Your task to perform on an android device: open app "Booking.com: Hotels and more" (install if not already installed) and enter user name: "misting@outlook.com" and password: "blandly" Image 0: 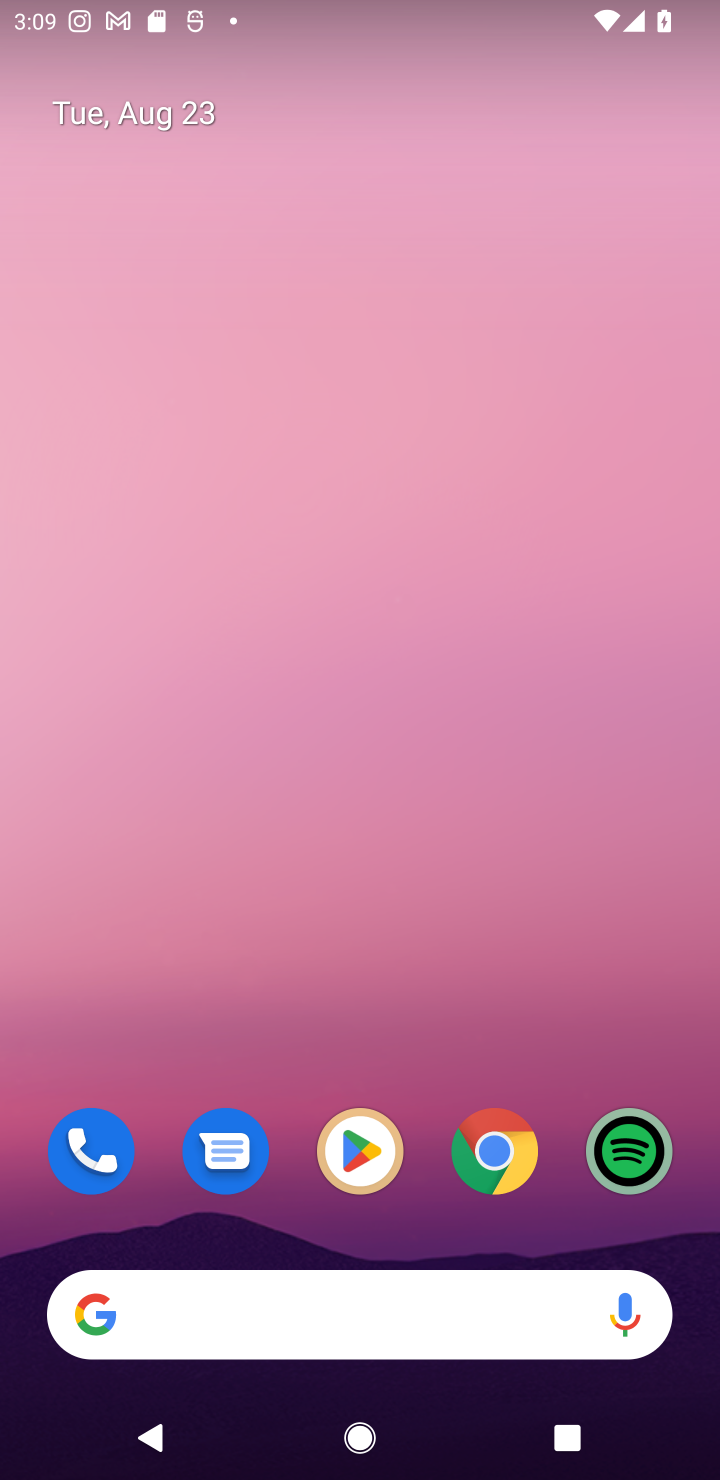
Step 0: press home button
Your task to perform on an android device: open app "Booking.com: Hotels and more" (install if not already installed) and enter user name: "misting@outlook.com" and password: "blandly" Image 1: 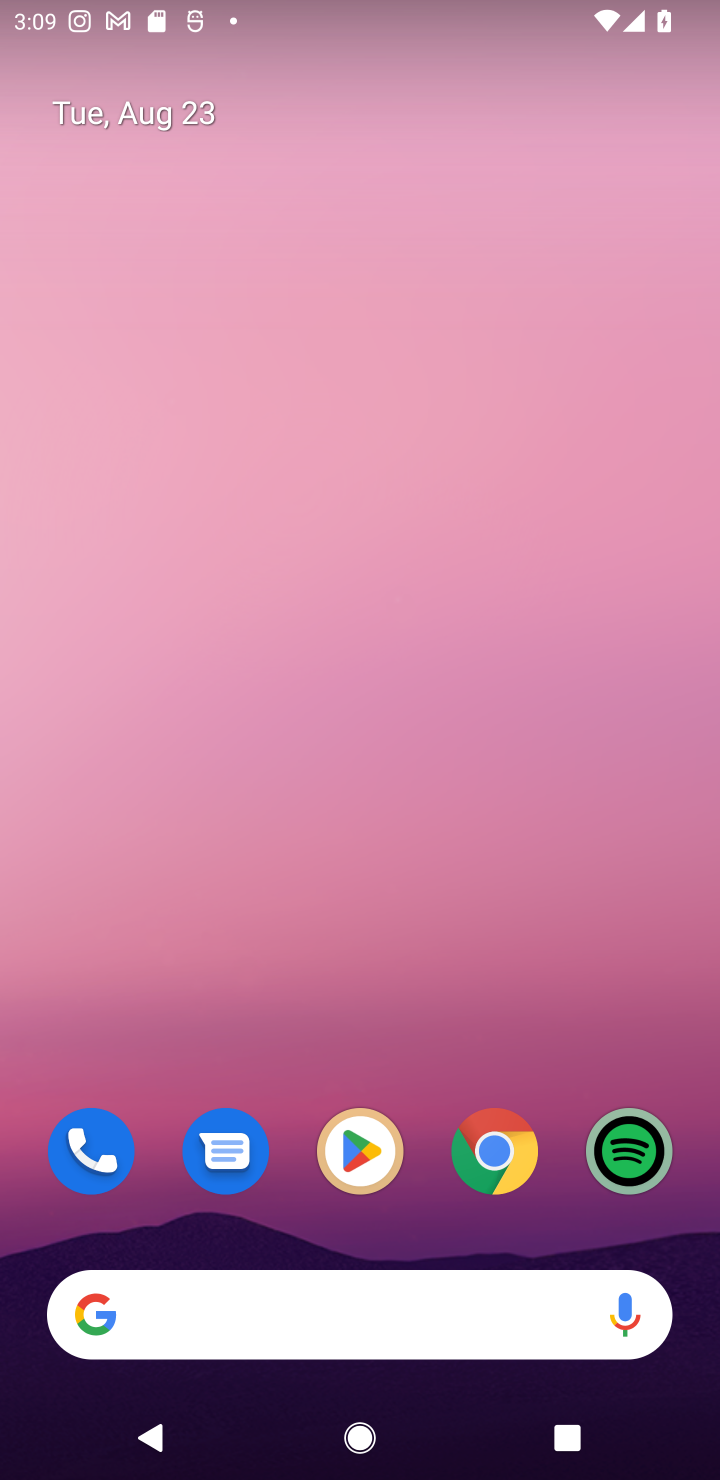
Step 1: click (349, 1155)
Your task to perform on an android device: open app "Booking.com: Hotels and more" (install if not already installed) and enter user name: "misting@outlook.com" and password: "blandly" Image 2: 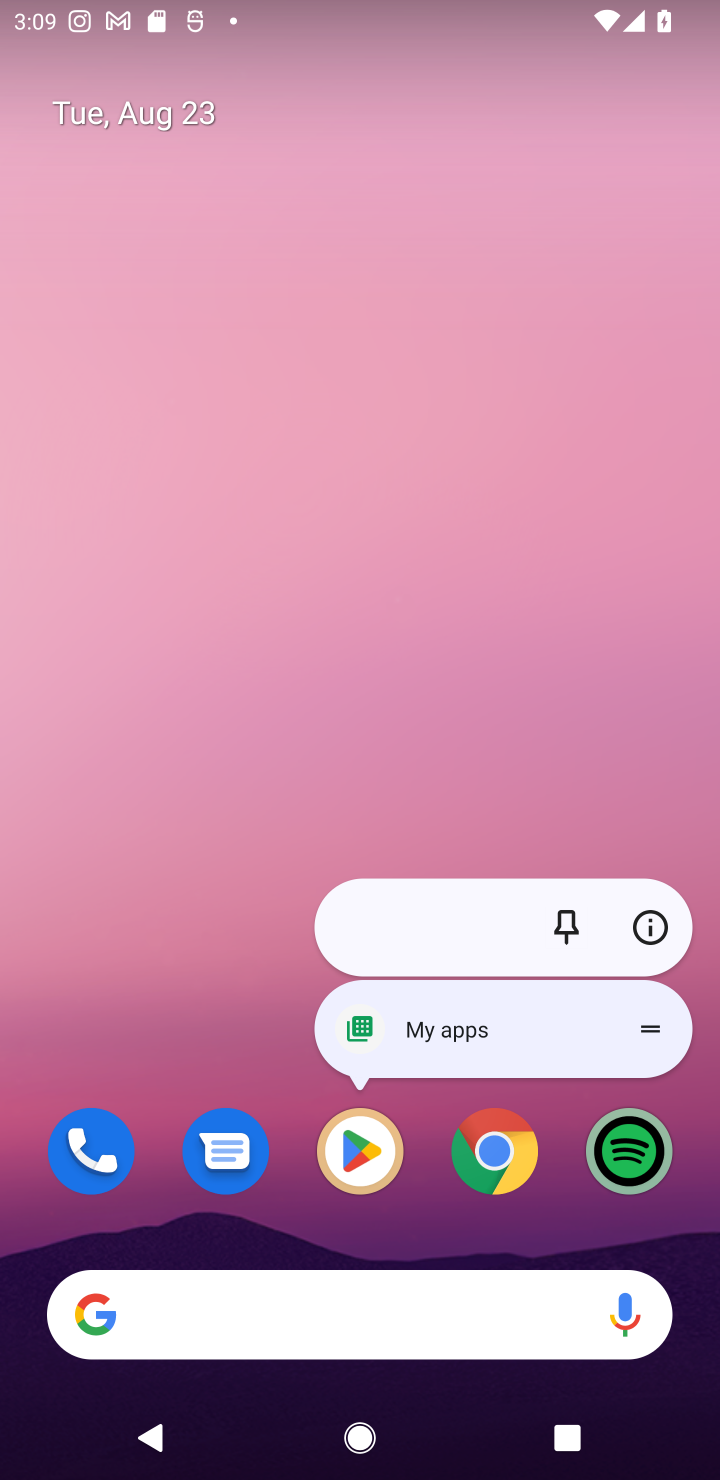
Step 2: click (354, 1144)
Your task to perform on an android device: open app "Booking.com: Hotels and more" (install if not already installed) and enter user name: "misting@outlook.com" and password: "blandly" Image 3: 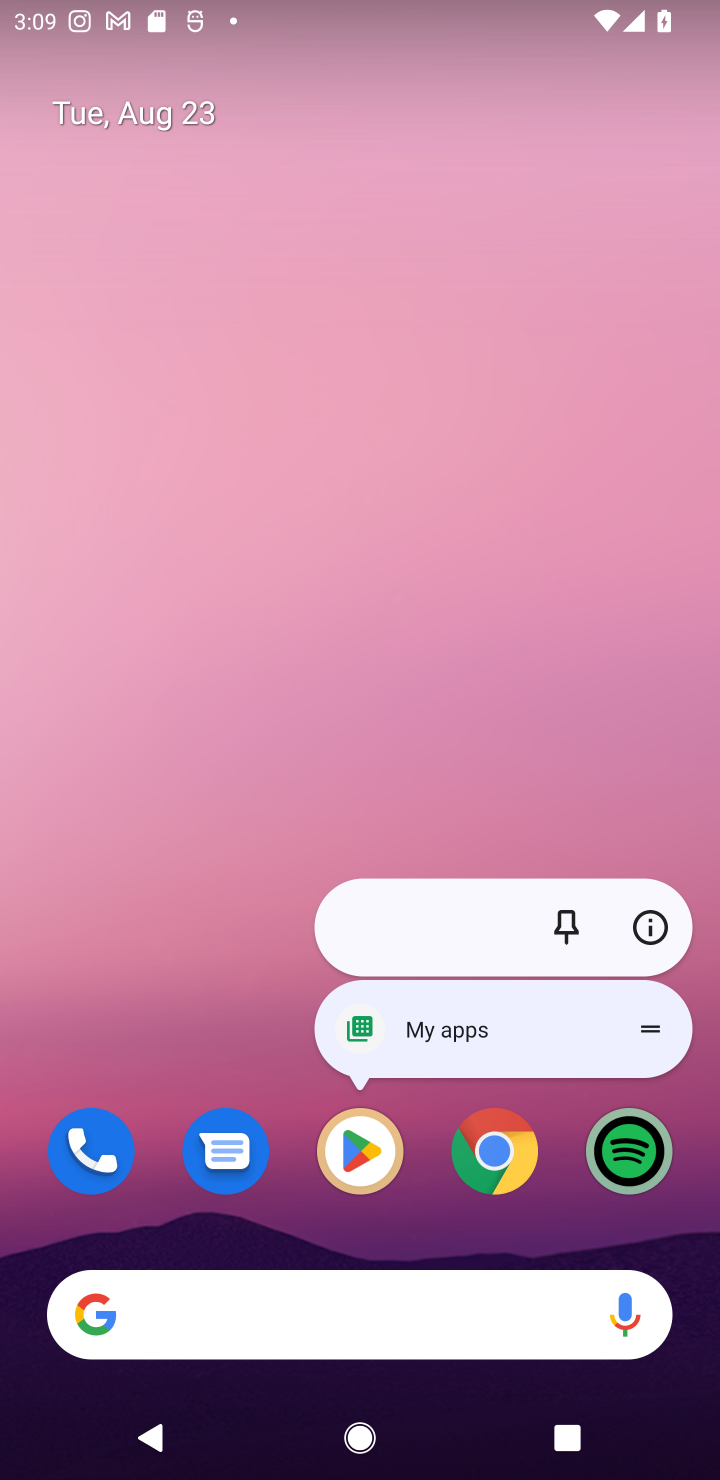
Step 3: click (359, 1149)
Your task to perform on an android device: open app "Booking.com: Hotels and more" (install if not already installed) and enter user name: "misting@outlook.com" and password: "blandly" Image 4: 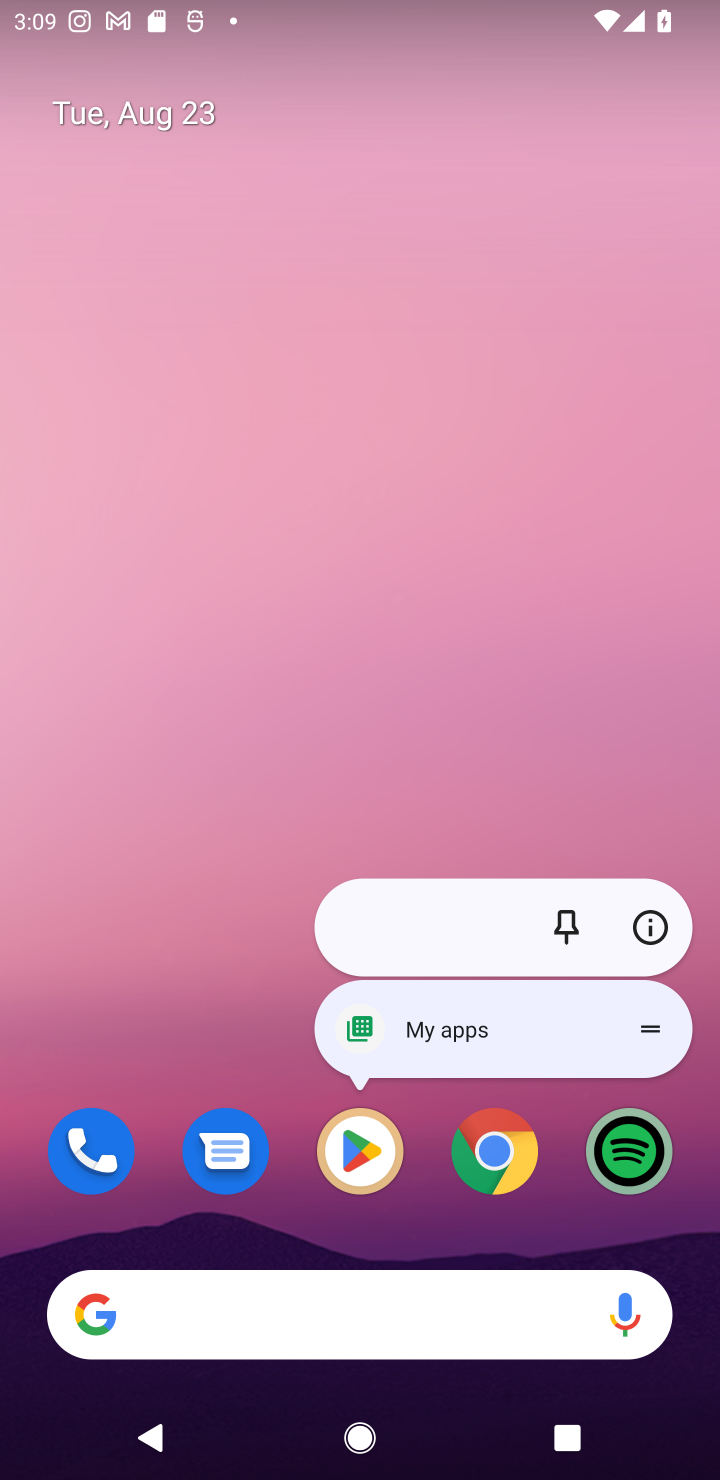
Step 4: click (359, 1149)
Your task to perform on an android device: open app "Booking.com: Hotels and more" (install if not already installed) and enter user name: "misting@outlook.com" and password: "blandly" Image 5: 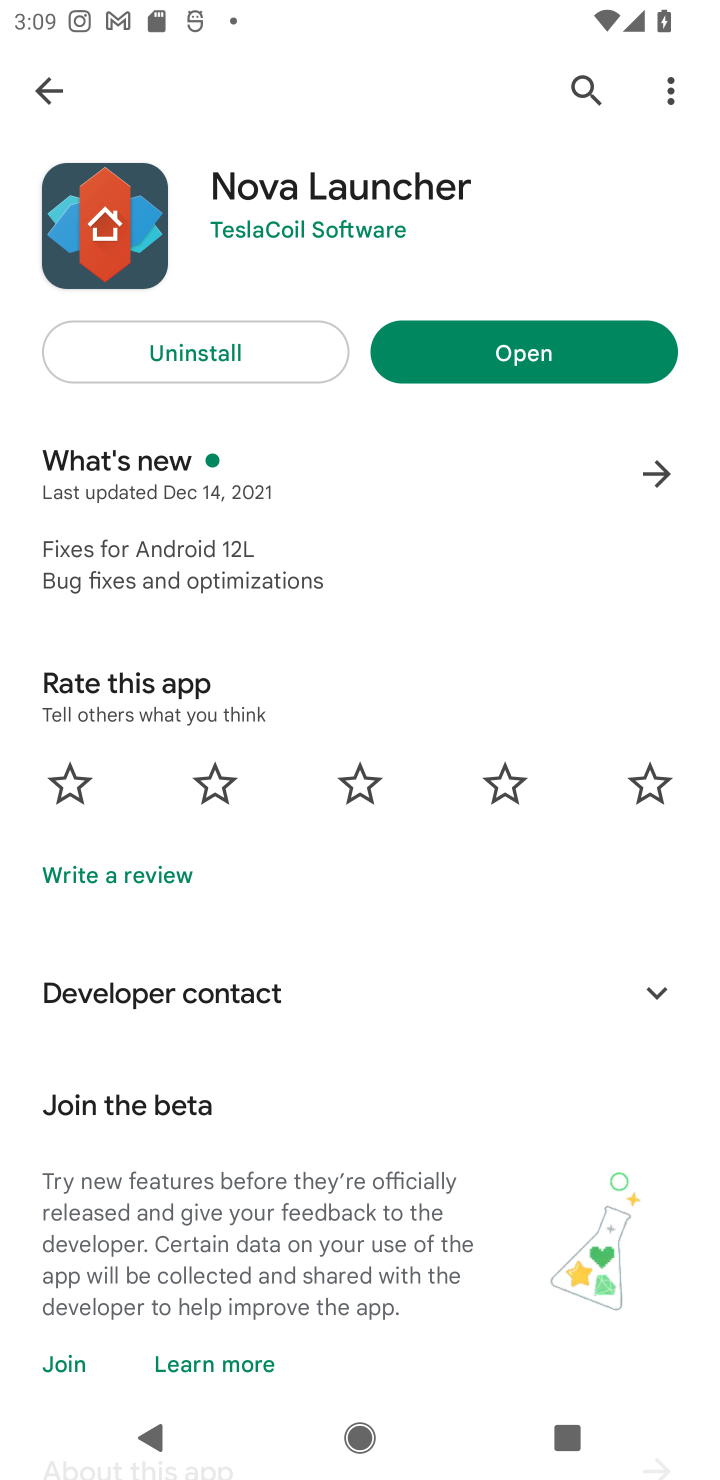
Step 5: click (589, 76)
Your task to perform on an android device: open app "Booking.com: Hotels and more" (install if not already installed) and enter user name: "misting@outlook.com" and password: "blandly" Image 6: 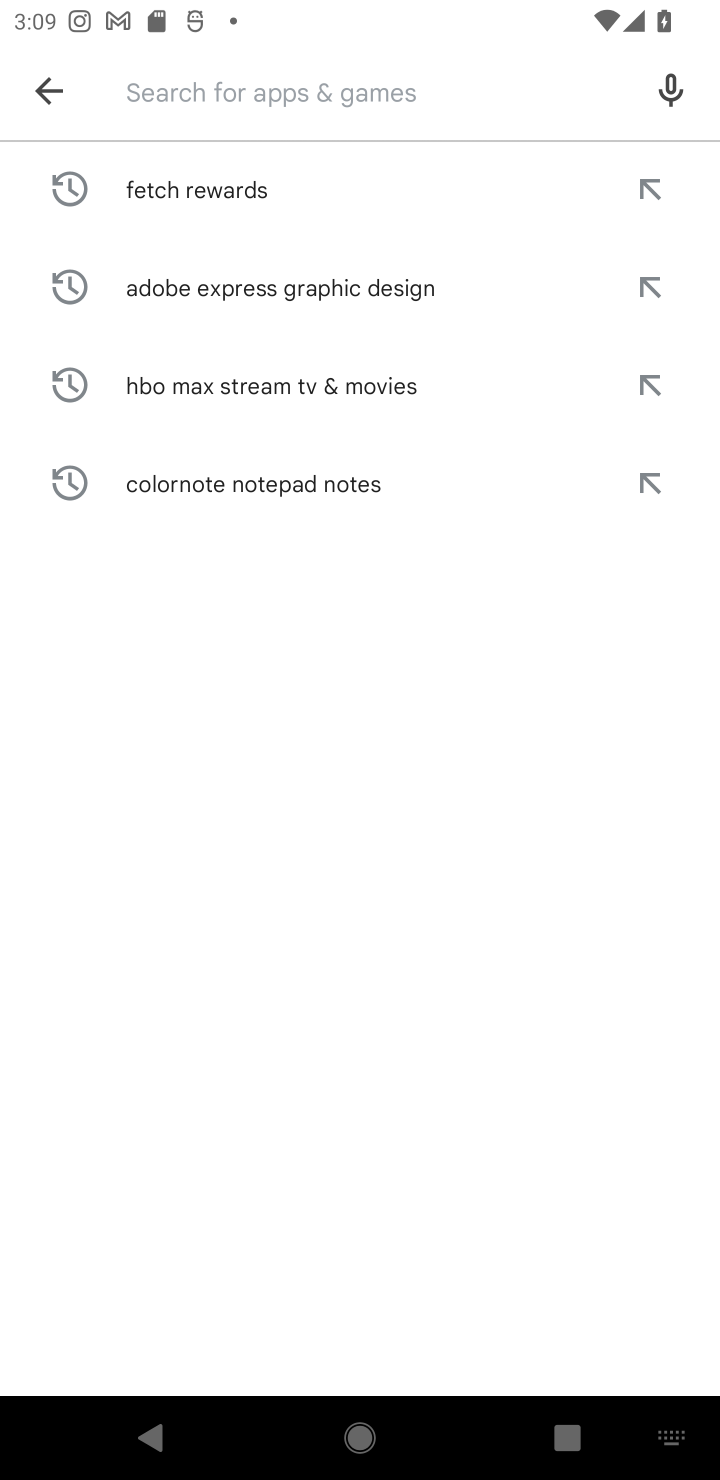
Step 6: type "Booking.com: Hotels and more"
Your task to perform on an android device: open app "Booking.com: Hotels and more" (install if not already installed) and enter user name: "misting@outlook.com" and password: "blandly" Image 7: 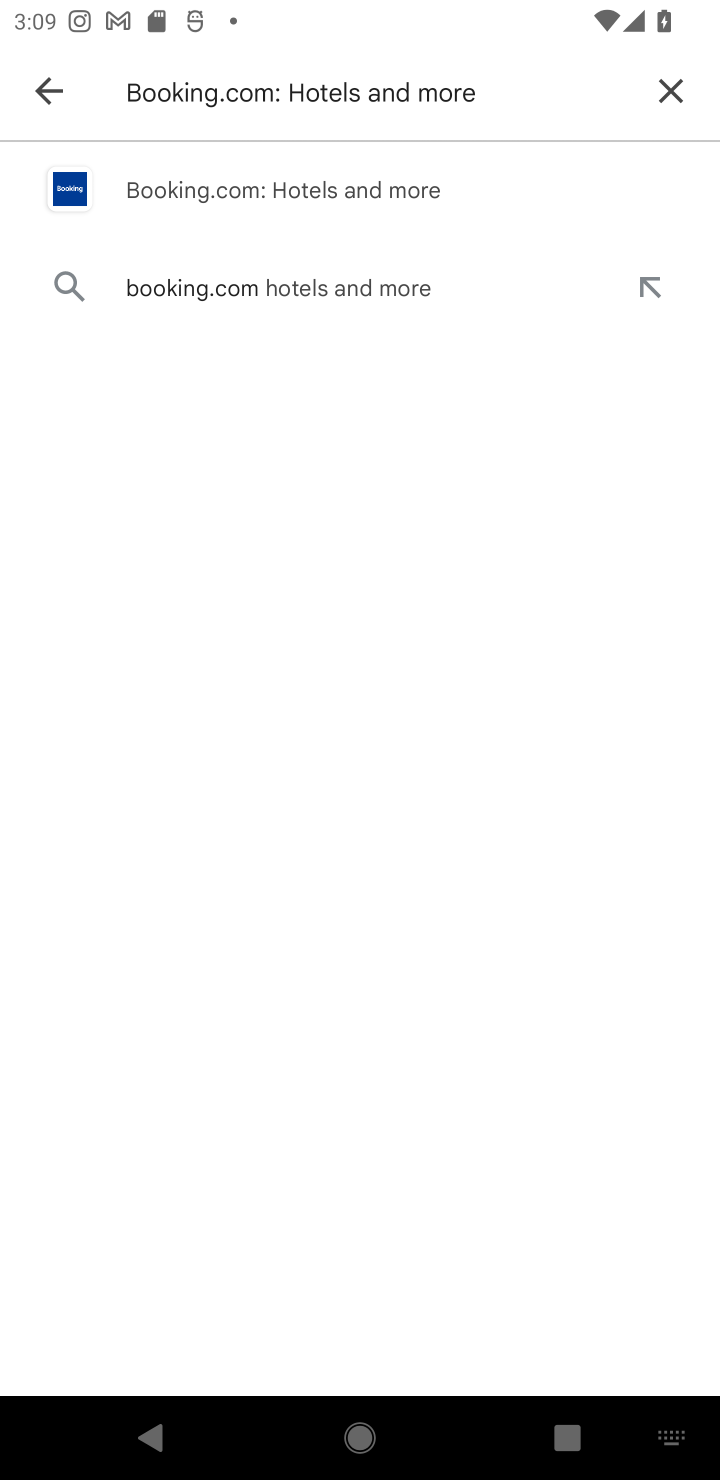
Step 7: click (260, 183)
Your task to perform on an android device: open app "Booking.com: Hotels and more" (install if not already installed) and enter user name: "misting@outlook.com" and password: "blandly" Image 8: 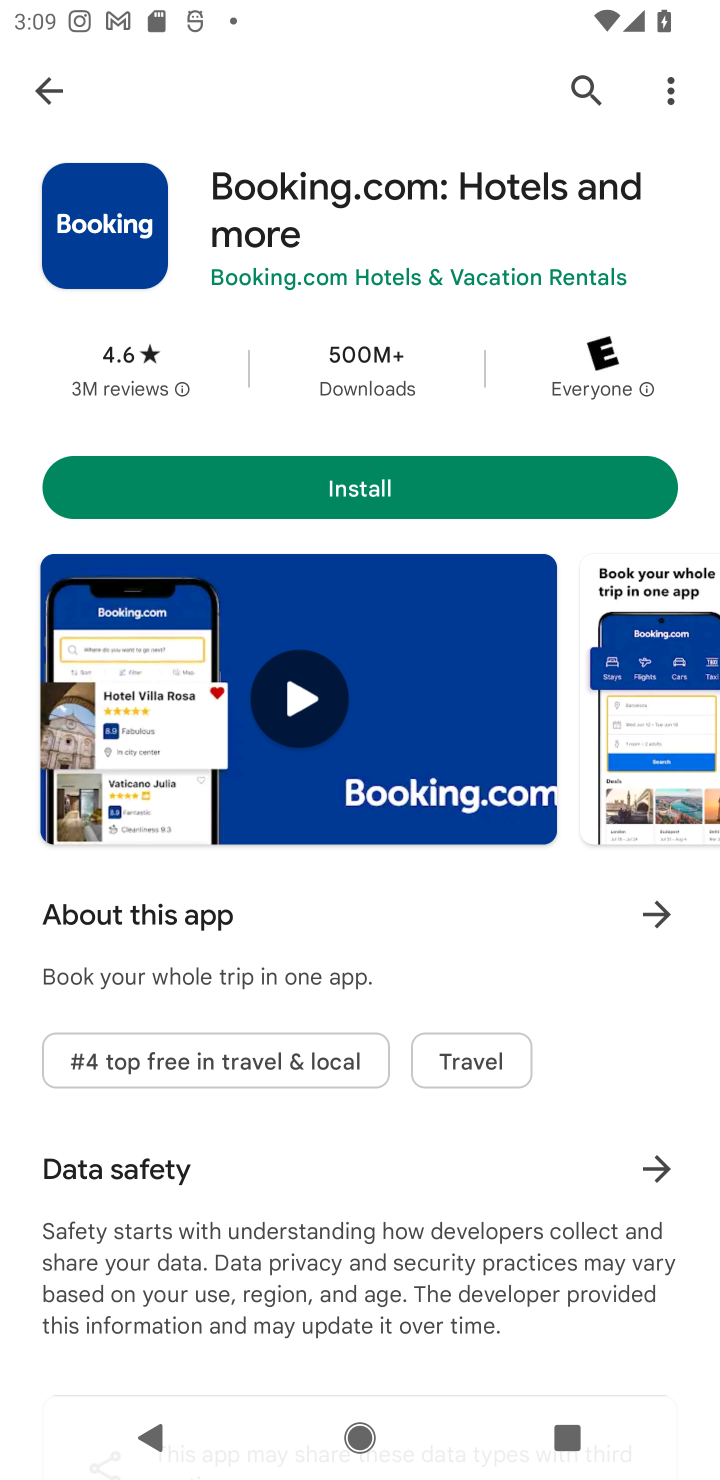
Step 8: click (390, 501)
Your task to perform on an android device: open app "Booking.com: Hotels and more" (install if not already installed) and enter user name: "misting@outlook.com" and password: "blandly" Image 9: 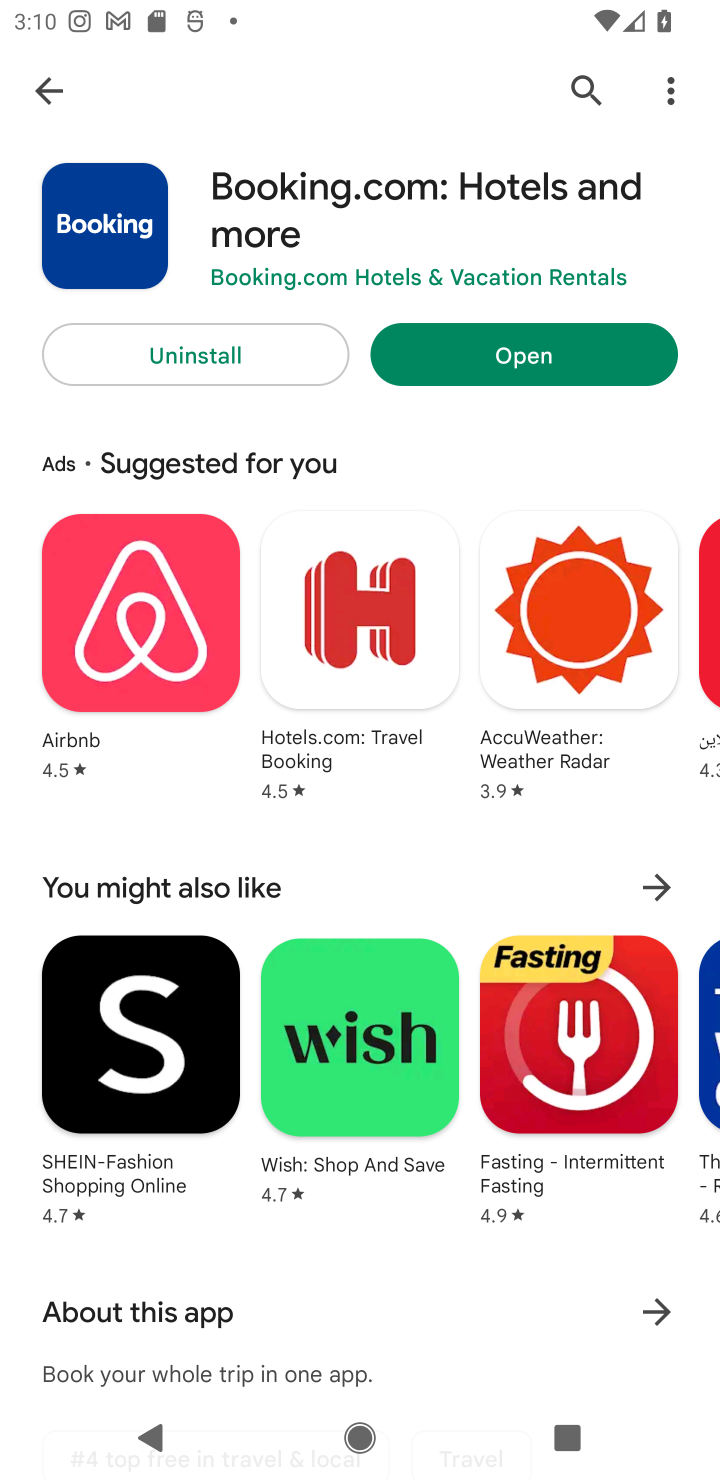
Step 9: click (556, 360)
Your task to perform on an android device: open app "Booking.com: Hotels and more" (install if not already installed) and enter user name: "misting@outlook.com" and password: "blandly" Image 10: 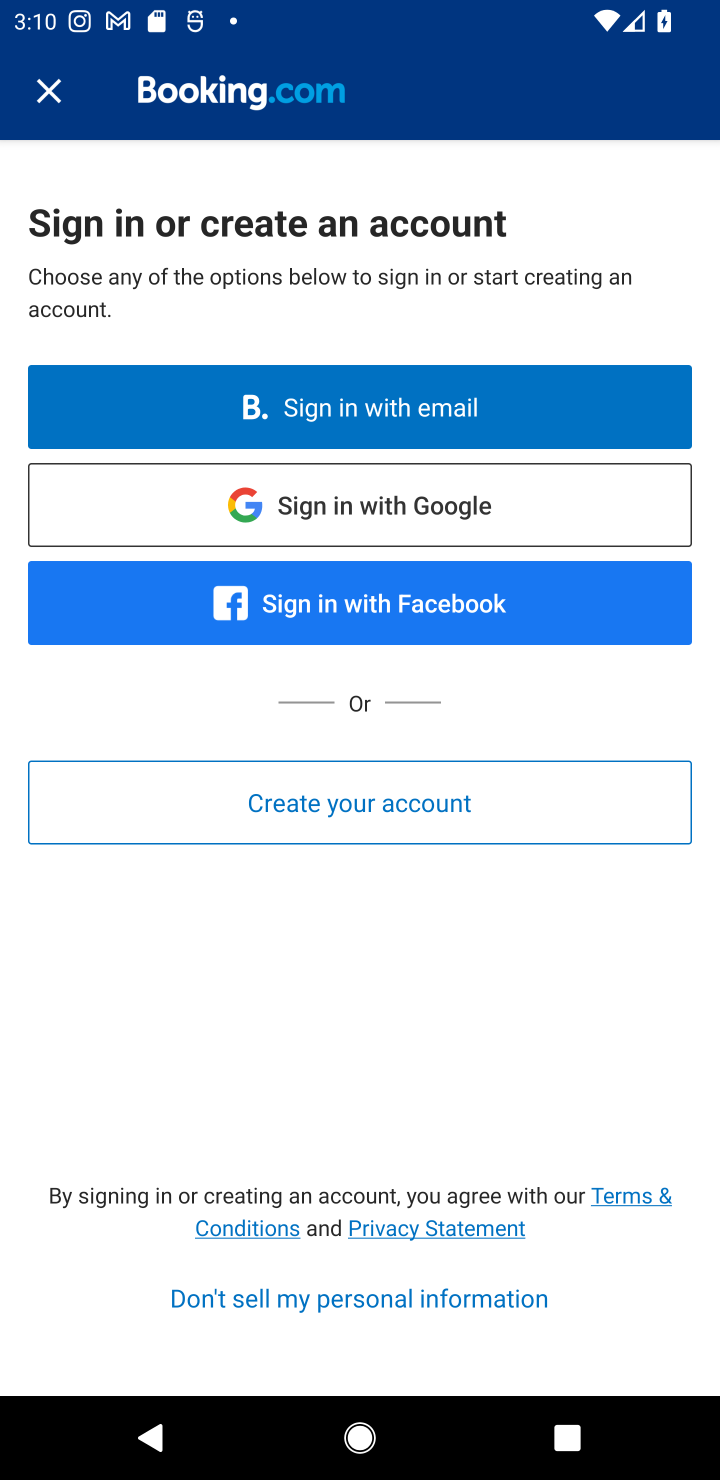
Step 10: click (413, 414)
Your task to perform on an android device: open app "Booking.com: Hotels and more" (install if not already installed) and enter user name: "misting@outlook.com" and password: "blandly" Image 11: 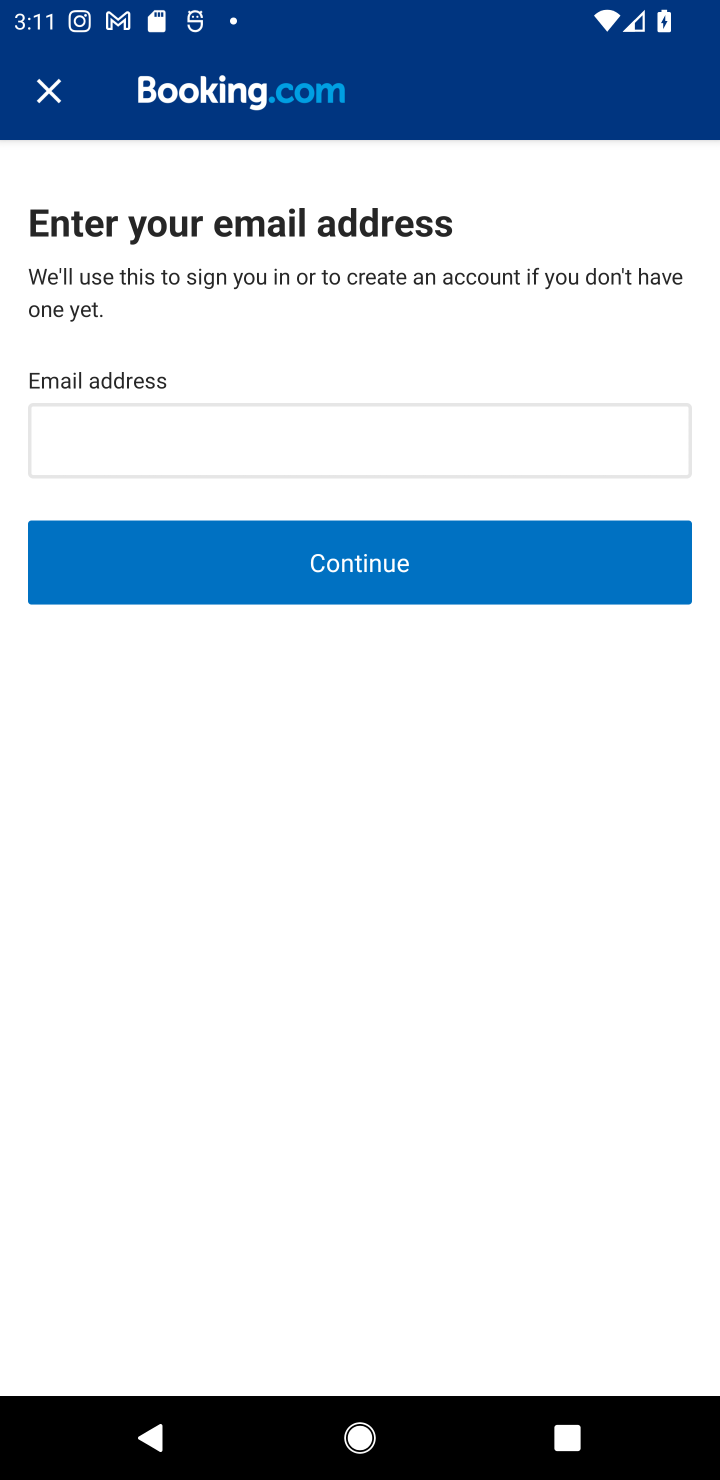
Step 11: click (144, 430)
Your task to perform on an android device: open app "Booking.com: Hotels and more" (install if not already installed) and enter user name: "misting@outlook.com" and password: "blandly" Image 12: 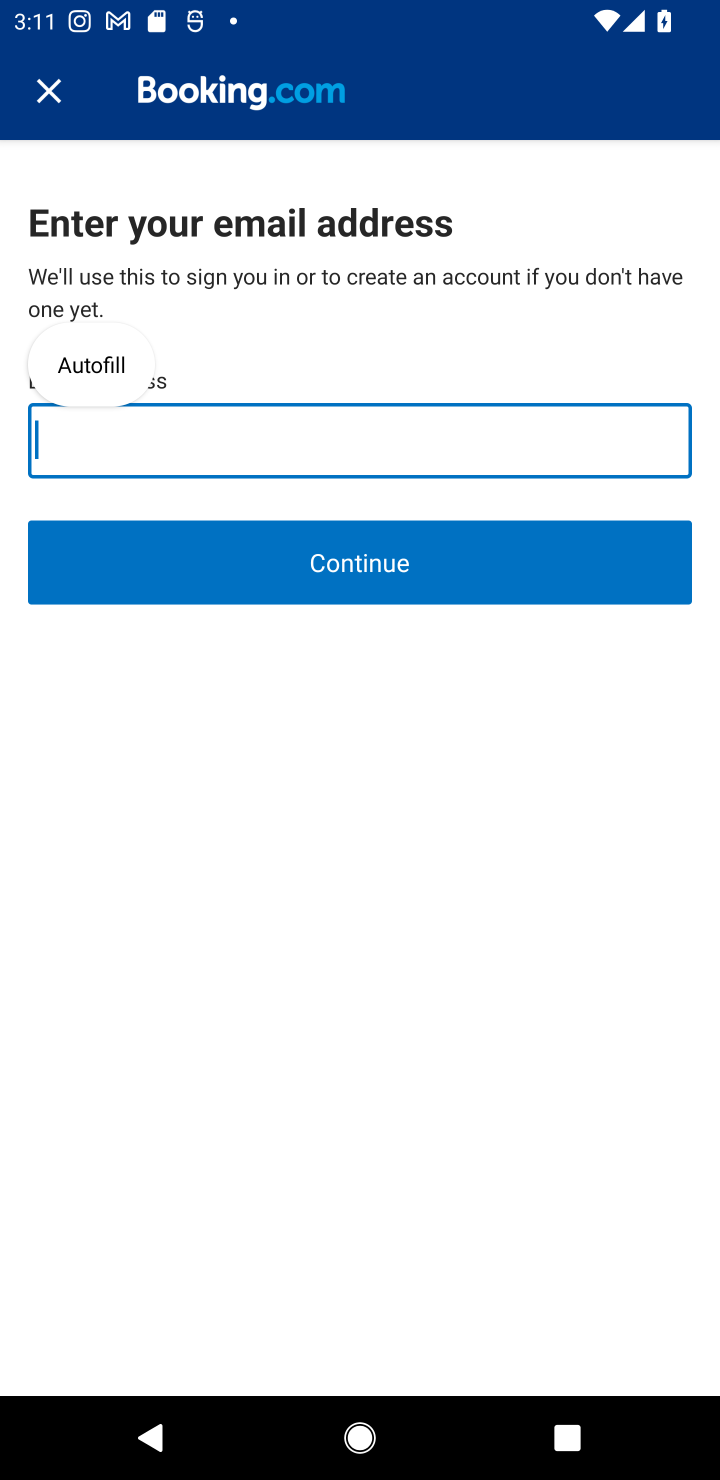
Step 12: type "misting@outlook.com"
Your task to perform on an android device: open app "Booking.com: Hotels and more" (install if not already installed) and enter user name: "misting@outlook.com" and password: "blandly" Image 13: 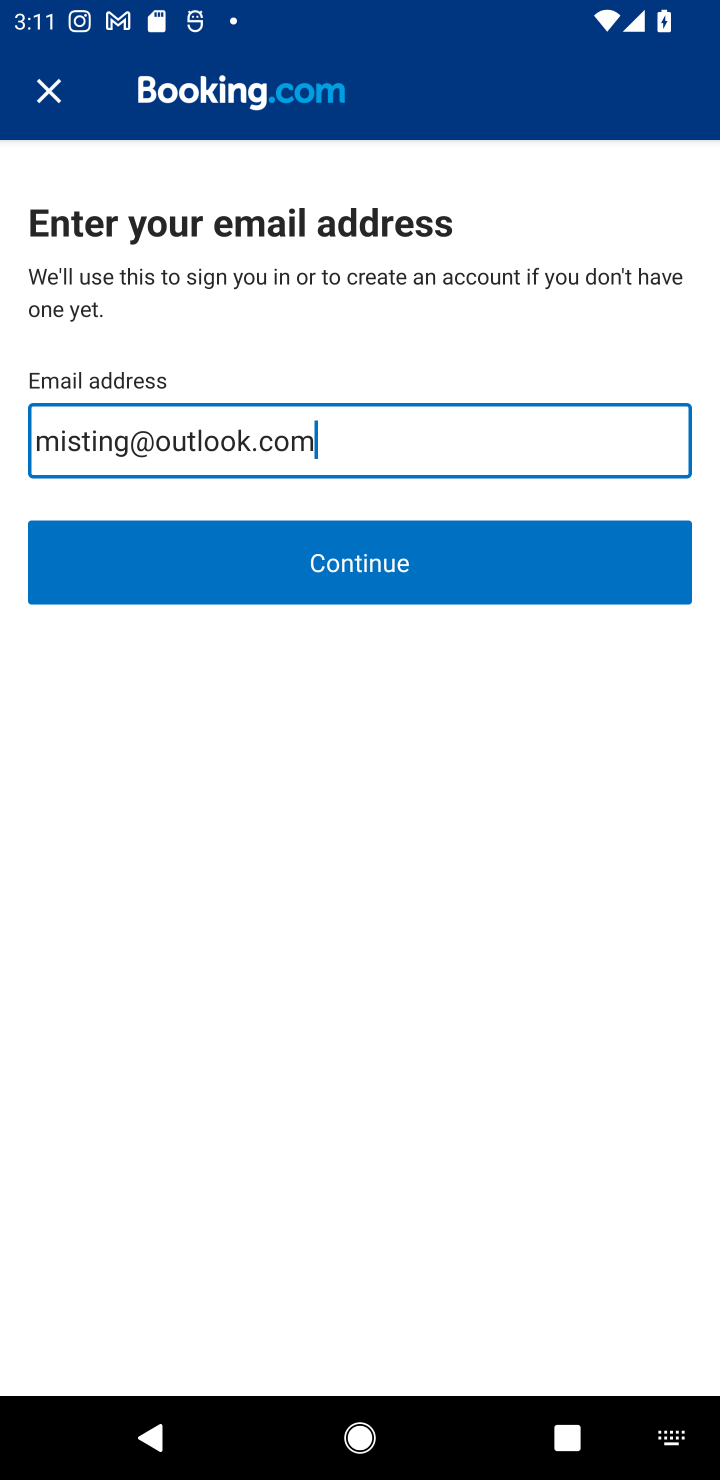
Step 13: click (413, 570)
Your task to perform on an android device: open app "Booking.com: Hotels and more" (install if not already installed) and enter user name: "misting@outlook.com" and password: "blandly" Image 14: 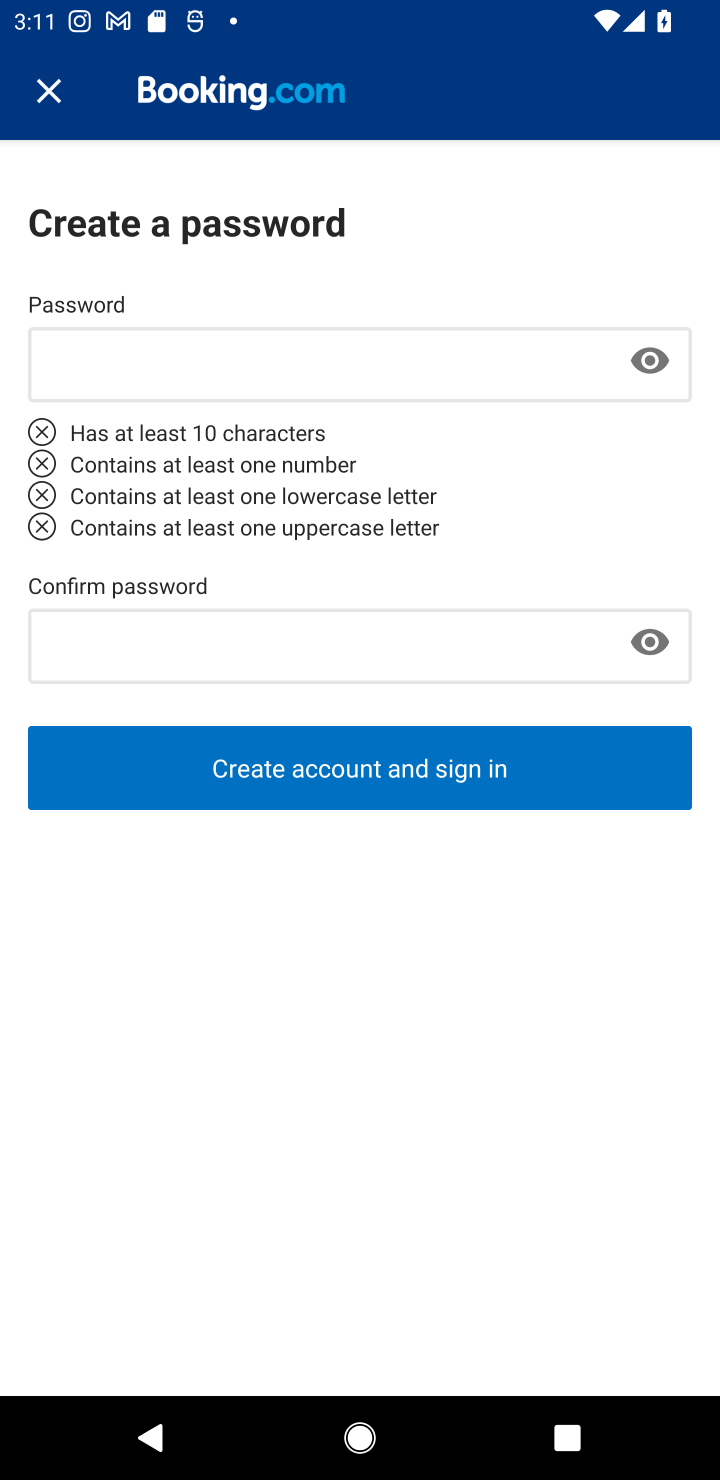
Step 14: click (237, 346)
Your task to perform on an android device: open app "Booking.com: Hotels and more" (install if not already installed) and enter user name: "misting@outlook.com" and password: "blandly" Image 15: 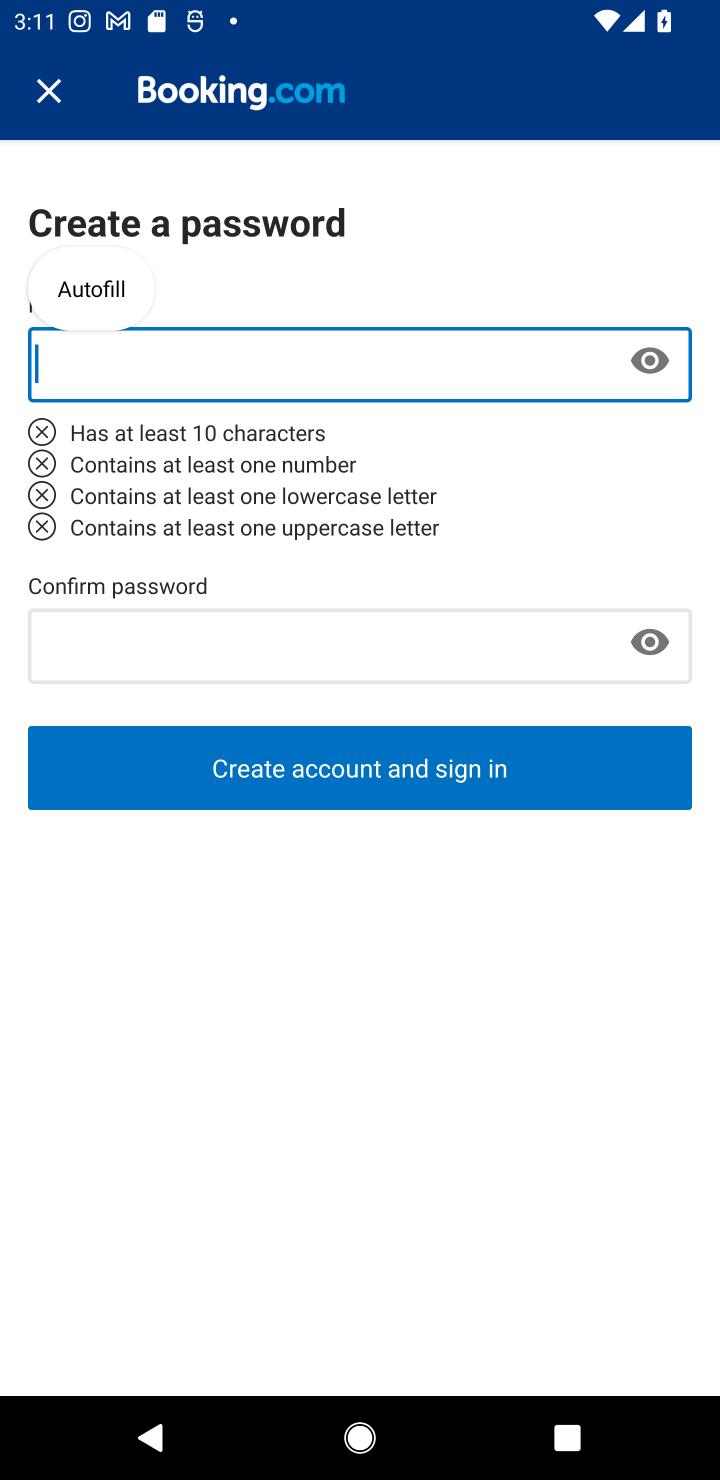
Step 15: type "blandly"
Your task to perform on an android device: open app "Booking.com: Hotels and more" (install if not already installed) and enter user name: "misting@outlook.com" and password: "blandly" Image 16: 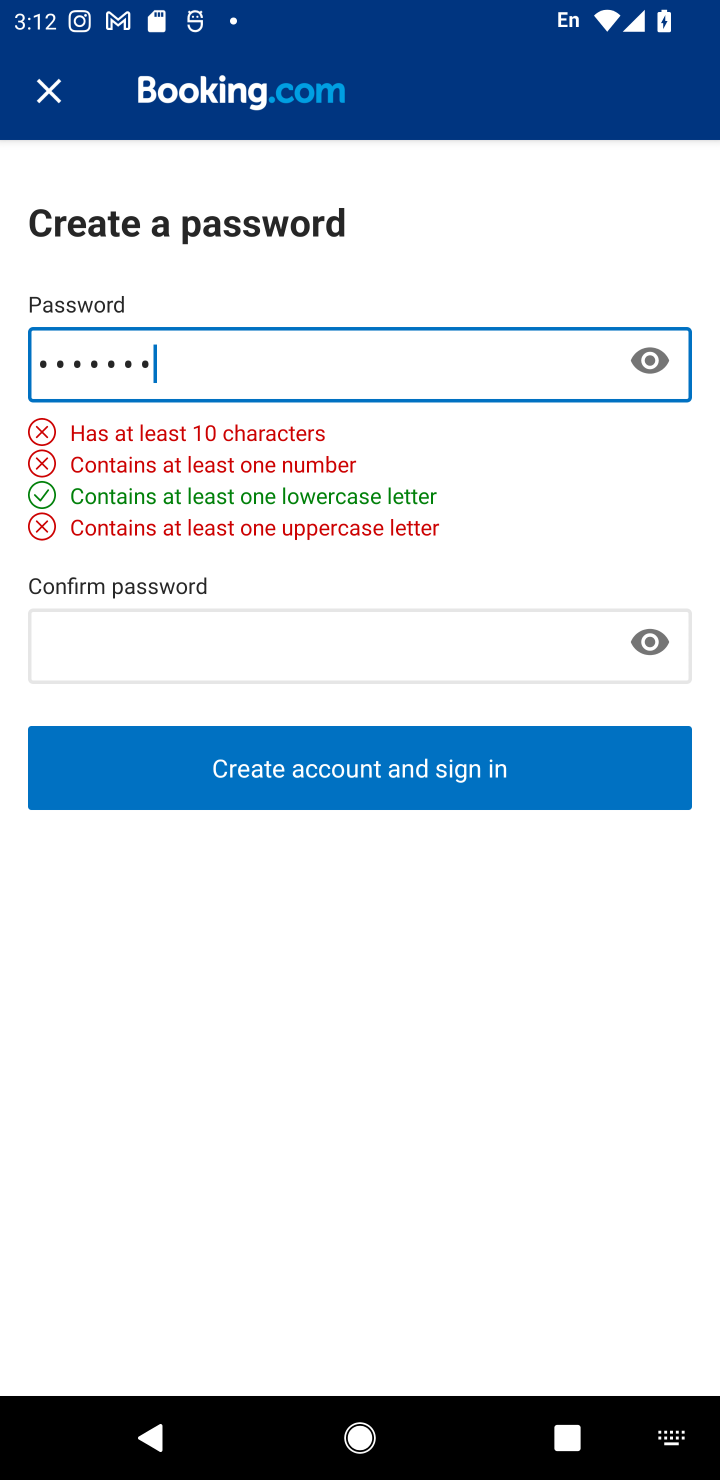
Step 16: task complete